Your task to perform on an android device: find which apps use the phone's location Image 0: 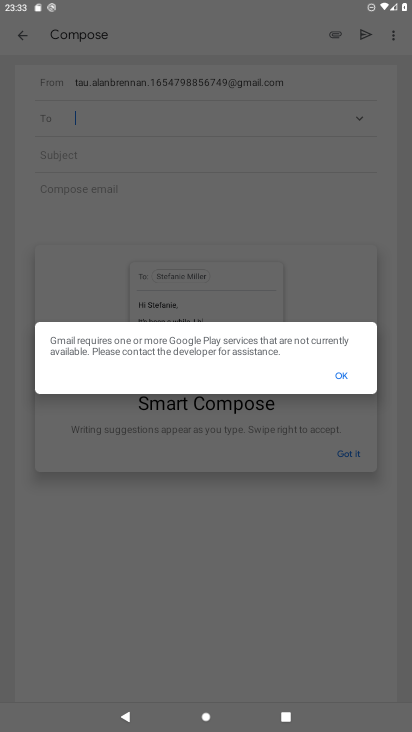
Step 0: press home button
Your task to perform on an android device: find which apps use the phone's location Image 1: 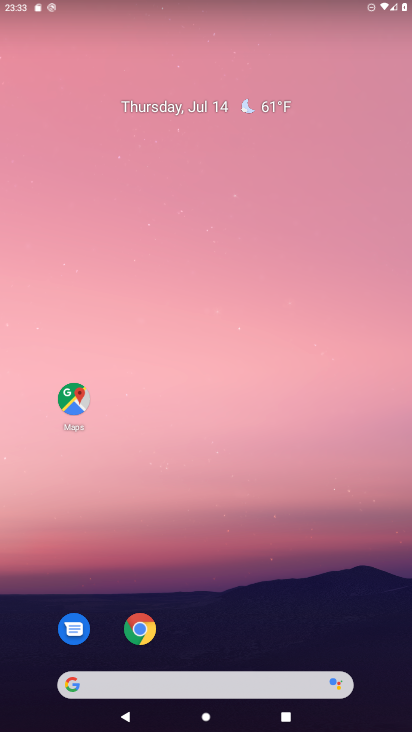
Step 1: drag from (194, 653) to (198, 94)
Your task to perform on an android device: find which apps use the phone's location Image 2: 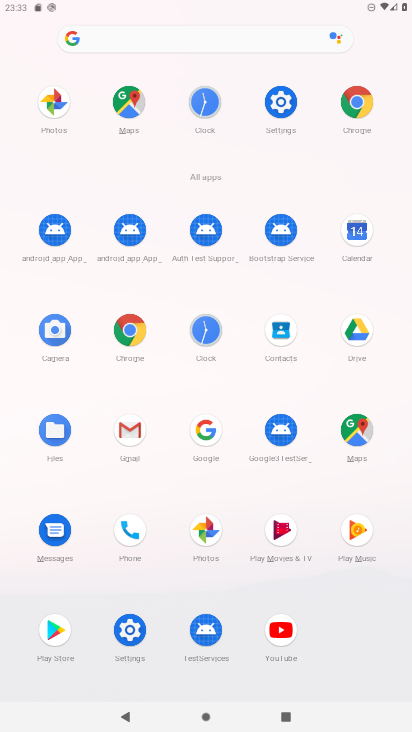
Step 2: click (276, 83)
Your task to perform on an android device: find which apps use the phone's location Image 3: 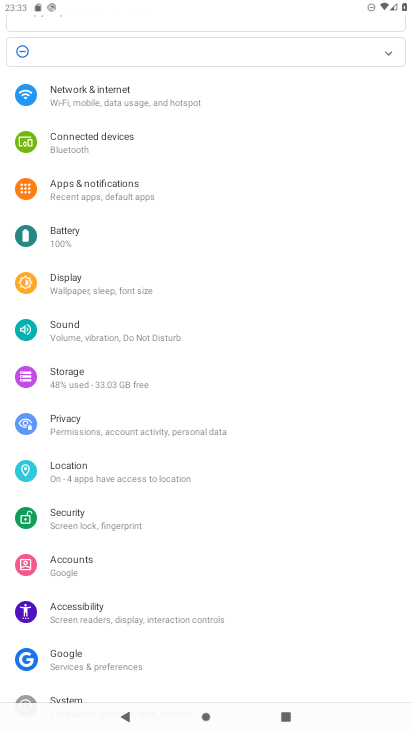
Step 3: click (156, 474)
Your task to perform on an android device: find which apps use the phone's location Image 4: 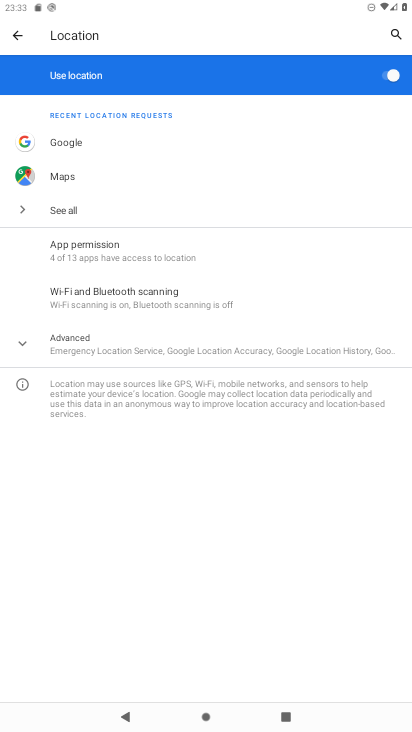
Step 4: task complete